Your task to perform on an android device: What is the news today? Image 0: 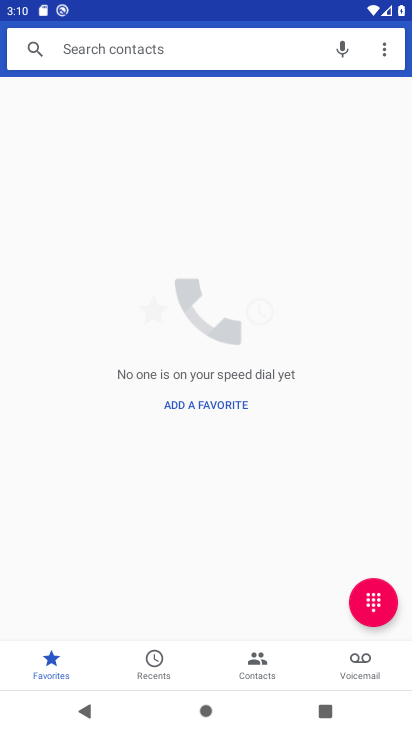
Step 0: press home button
Your task to perform on an android device: What is the news today? Image 1: 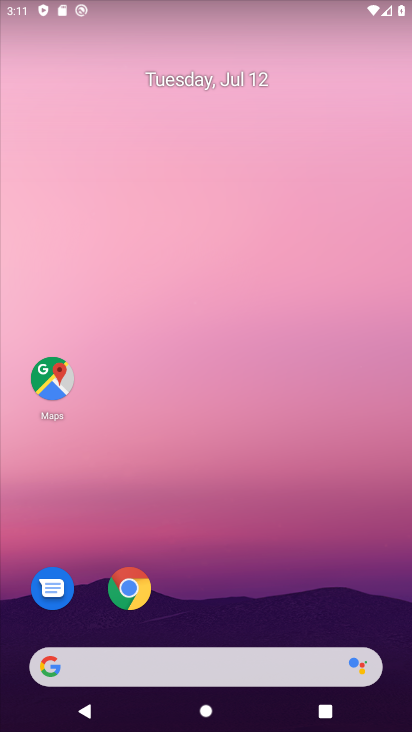
Step 1: click (222, 660)
Your task to perform on an android device: What is the news today? Image 2: 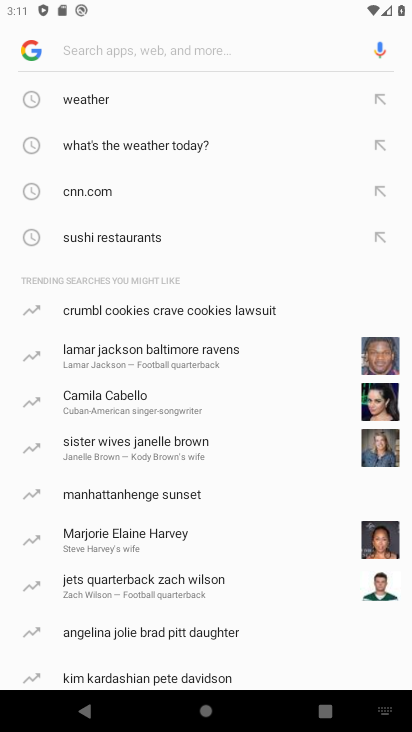
Step 2: type "what is the news today?"
Your task to perform on an android device: What is the news today? Image 3: 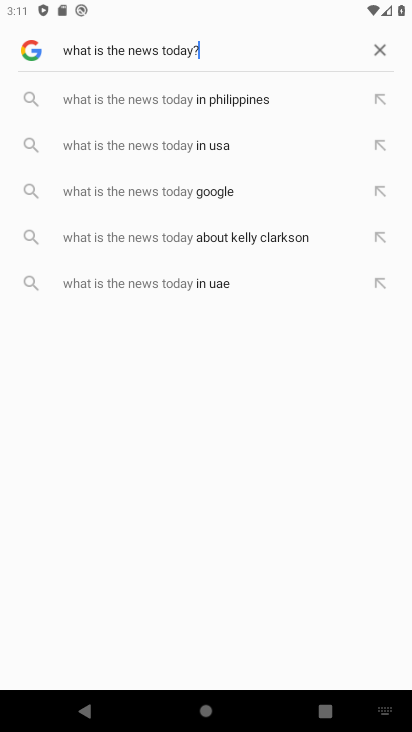
Step 3: click (197, 188)
Your task to perform on an android device: What is the news today? Image 4: 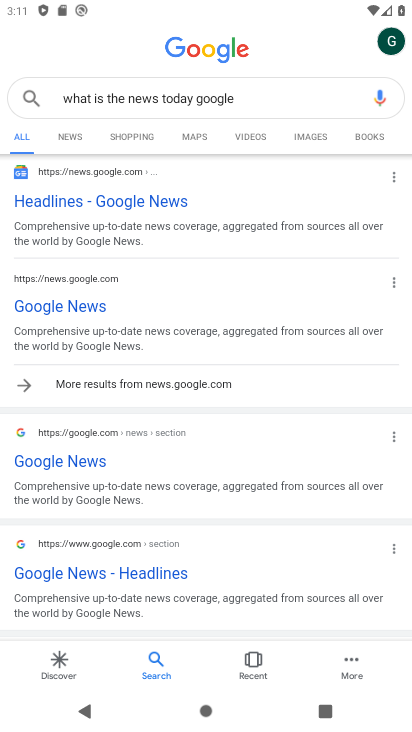
Step 4: click (65, 139)
Your task to perform on an android device: What is the news today? Image 5: 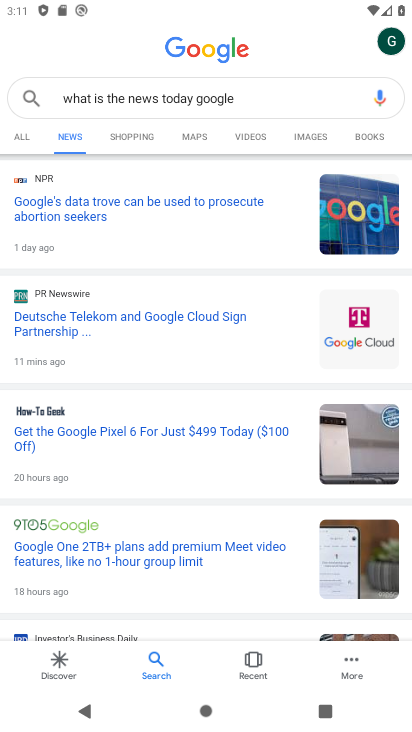
Step 5: task complete